Your task to perform on an android device: Open Wikipedia Image 0: 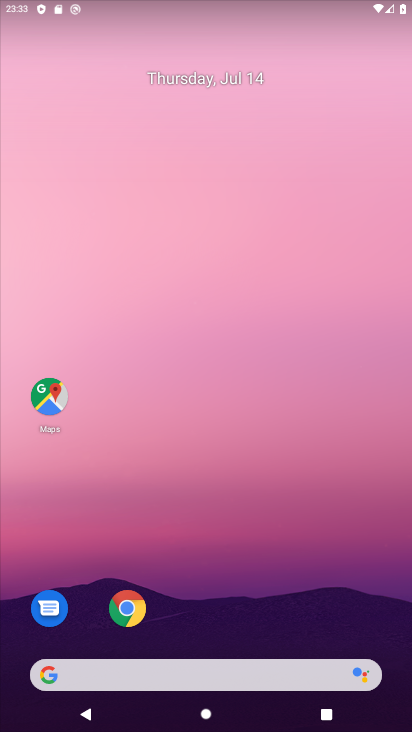
Step 0: click (106, 671)
Your task to perform on an android device: Open Wikipedia Image 1: 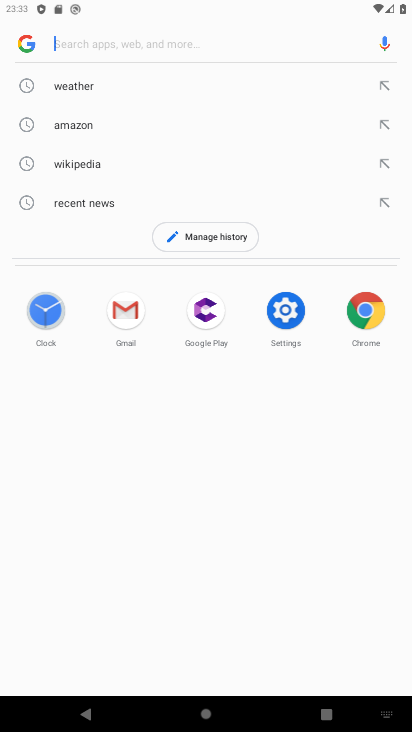
Step 1: type "Wikipedia"
Your task to perform on an android device: Open Wikipedia Image 2: 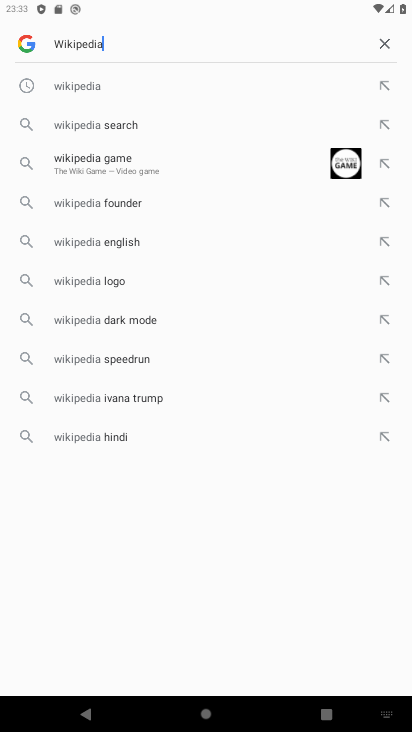
Step 2: click (71, 85)
Your task to perform on an android device: Open Wikipedia Image 3: 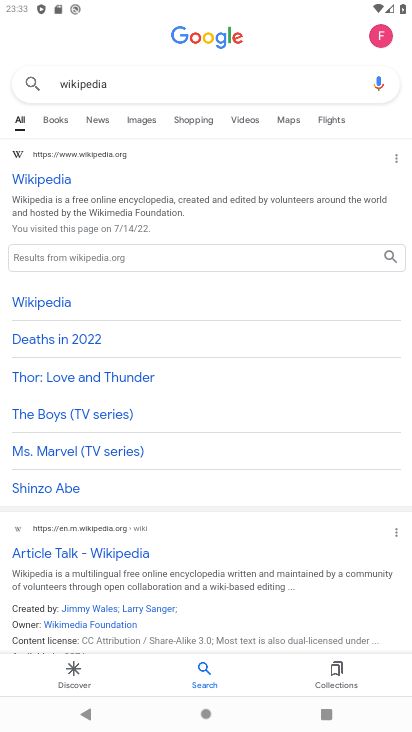
Step 3: task complete